Your task to perform on an android device: Find coffee shops on Maps Image 0: 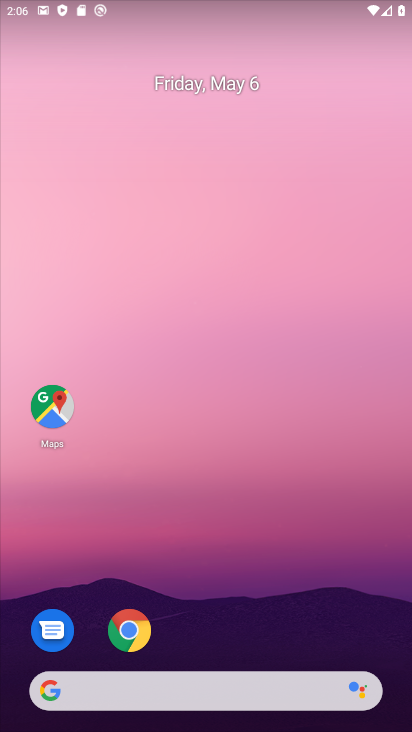
Step 0: click (53, 406)
Your task to perform on an android device: Find coffee shops on Maps Image 1: 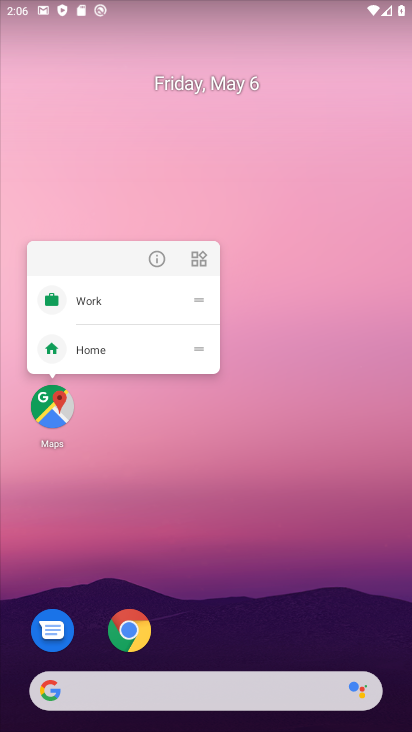
Step 1: click (46, 406)
Your task to perform on an android device: Find coffee shops on Maps Image 2: 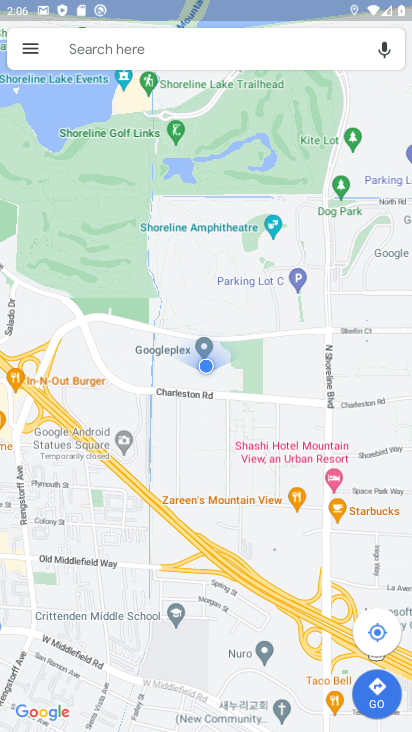
Step 2: click (277, 53)
Your task to perform on an android device: Find coffee shops on Maps Image 3: 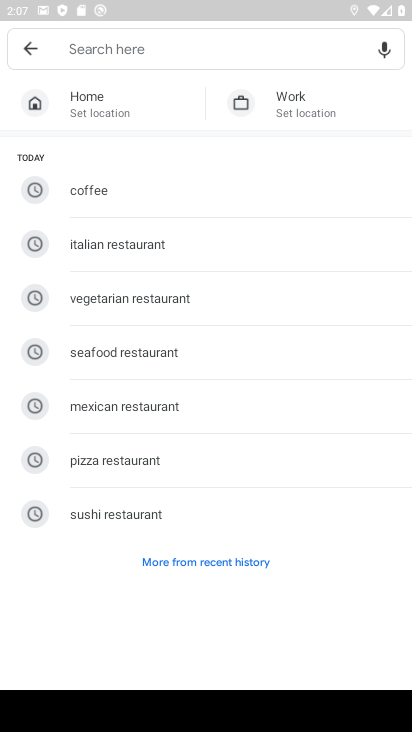
Step 3: type "coffee shops"
Your task to perform on an android device: Find coffee shops on Maps Image 4: 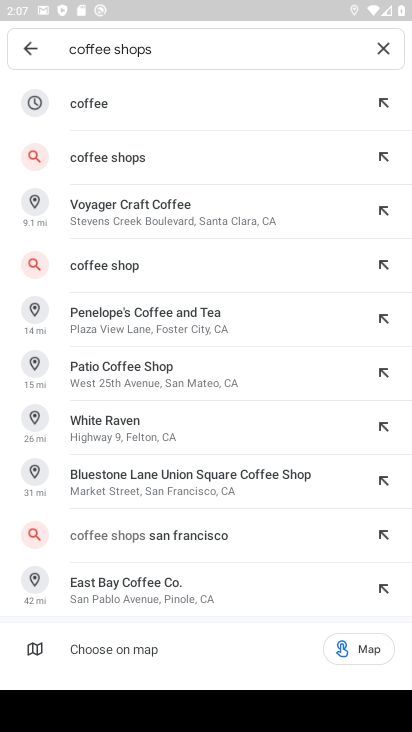
Step 4: click (169, 164)
Your task to perform on an android device: Find coffee shops on Maps Image 5: 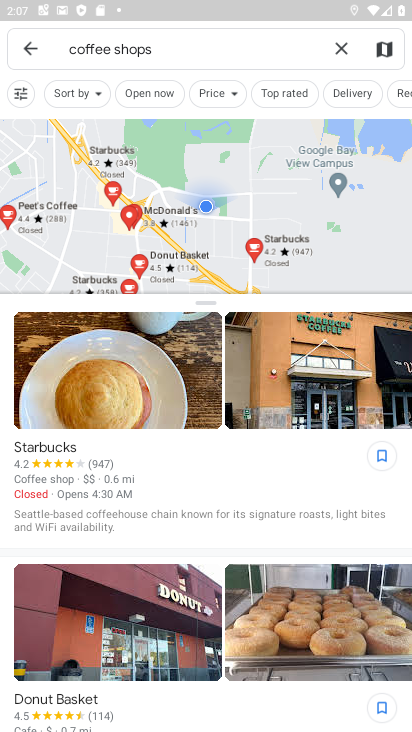
Step 5: task complete